Your task to perform on an android device: turn on wifi Image 0: 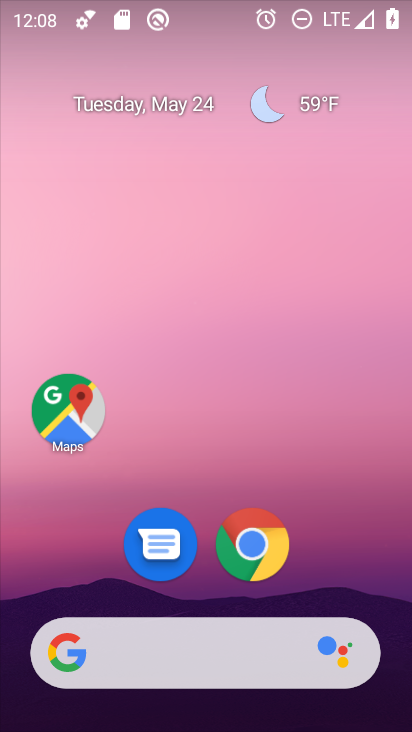
Step 0: drag from (407, 634) to (301, 37)
Your task to perform on an android device: turn on wifi Image 1: 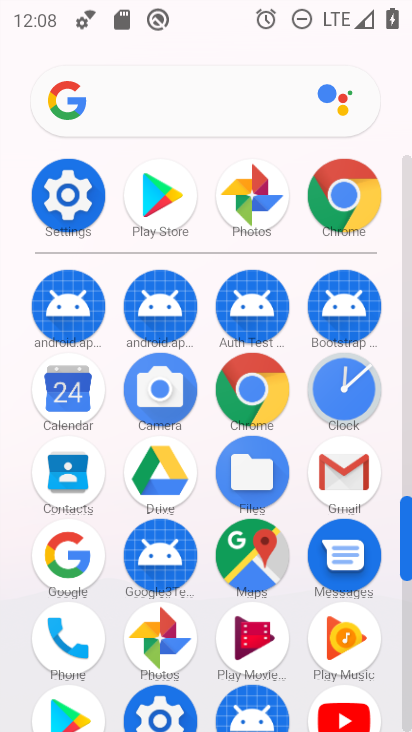
Step 1: click (159, 707)
Your task to perform on an android device: turn on wifi Image 2: 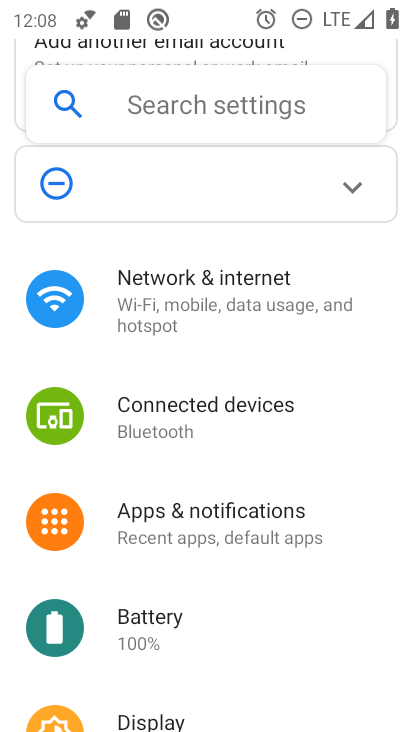
Step 2: click (165, 281)
Your task to perform on an android device: turn on wifi Image 3: 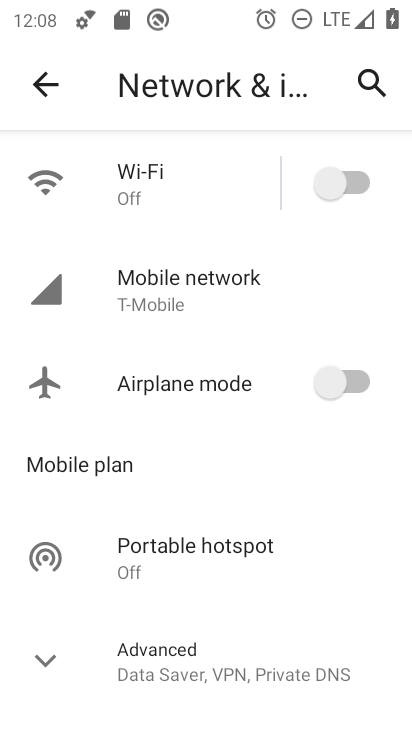
Step 3: click (347, 182)
Your task to perform on an android device: turn on wifi Image 4: 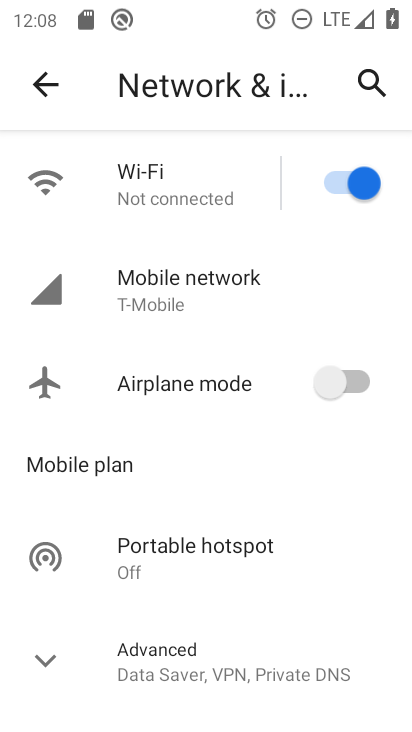
Step 4: task complete